Your task to perform on an android device: open chrome privacy settings Image 0: 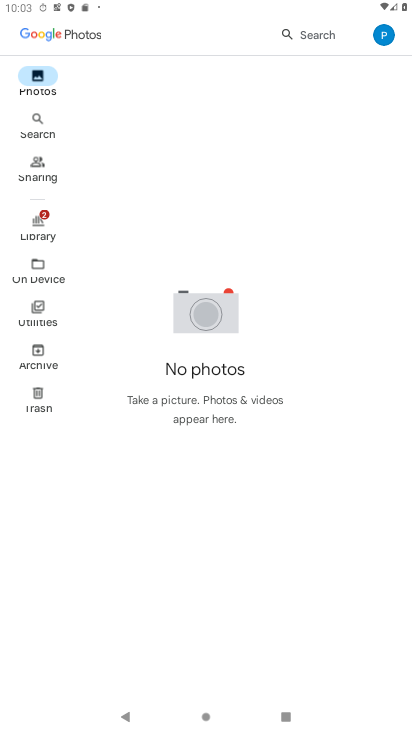
Step 0: press home button
Your task to perform on an android device: open chrome privacy settings Image 1: 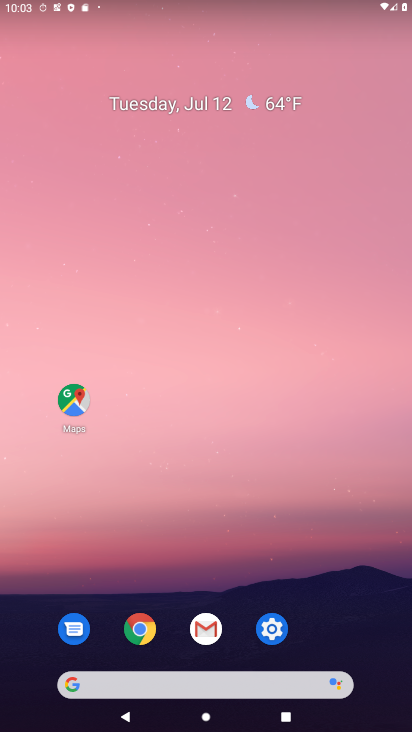
Step 1: click (155, 633)
Your task to perform on an android device: open chrome privacy settings Image 2: 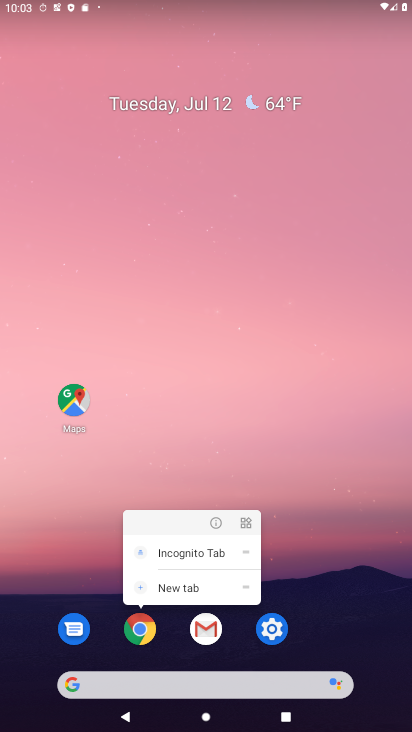
Step 2: click (141, 628)
Your task to perform on an android device: open chrome privacy settings Image 3: 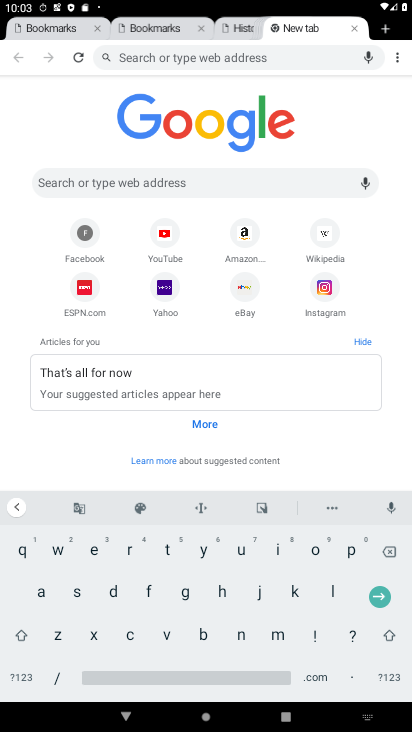
Step 3: click (397, 64)
Your task to perform on an android device: open chrome privacy settings Image 4: 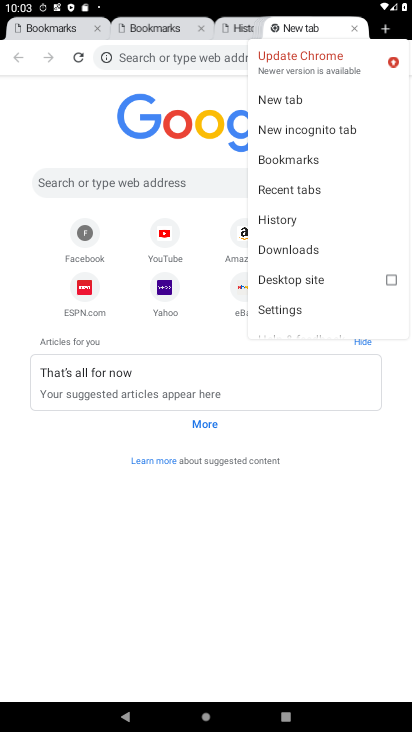
Step 4: click (274, 315)
Your task to perform on an android device: open chrome privacy settings Image 5: 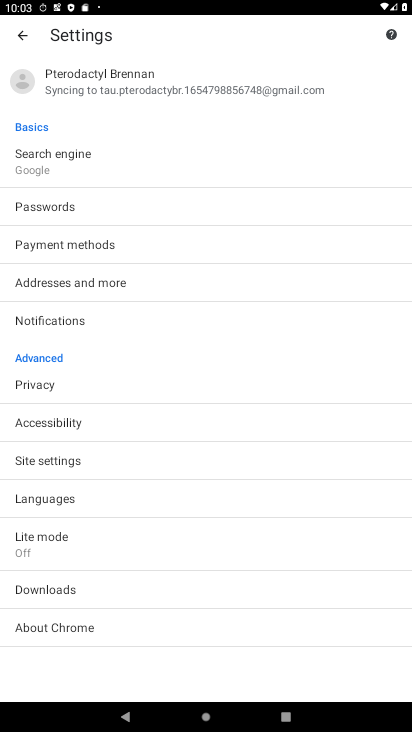
Step 5: click (46, 387)
Your task to perform on an android device: open chrome privacy settings Image 6: 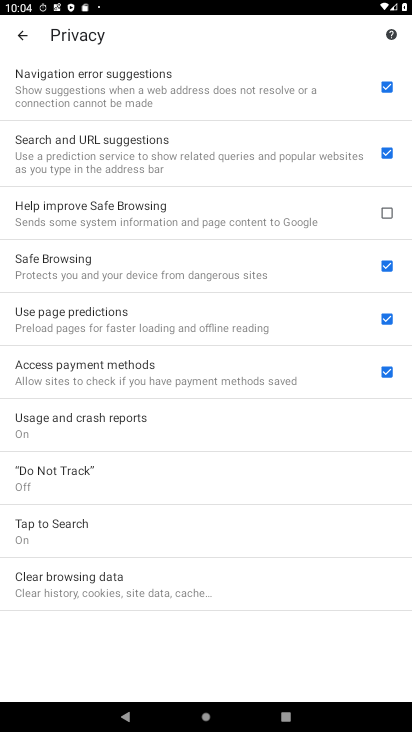
Step 6: task complete